Your task to perform on an android device: What's the weather going to be this weekend? Image 0: 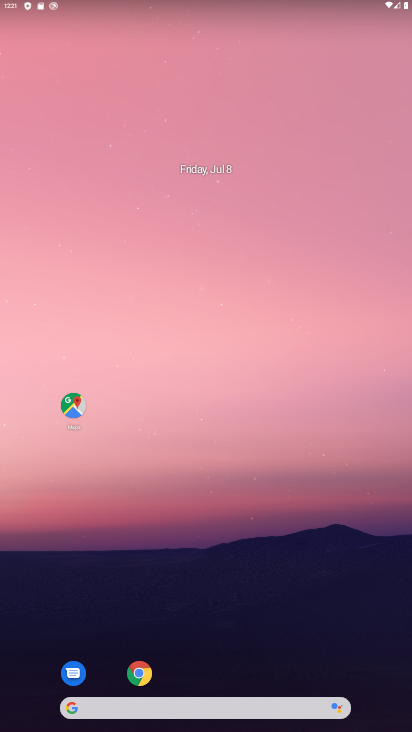
Step 0: drag from (249, 674) to (275, 71)
Your task to perform on an android device: What's the weather going to be this weekend? Image 1: 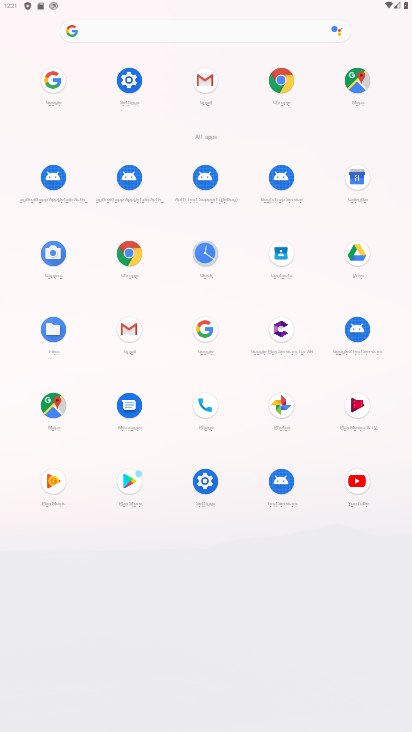
Step 1: click (202, 328)
Your task to perform on an android device: What's the weather going to be this weekend? Image 2: 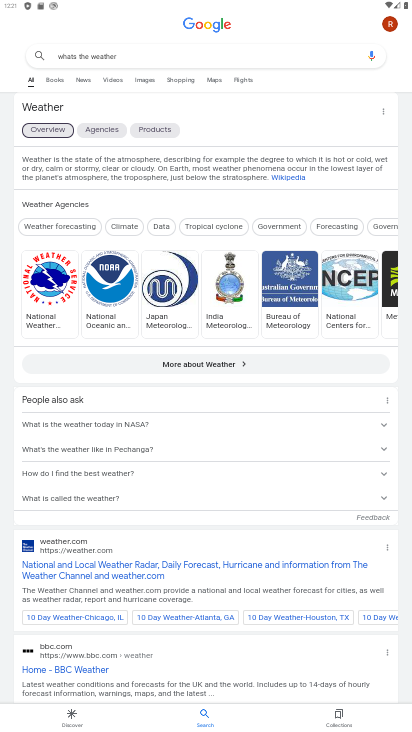
Step 2: click (197, 56)
Your task to perform on an android device: What's the weather going to be this weekend? Image 3: 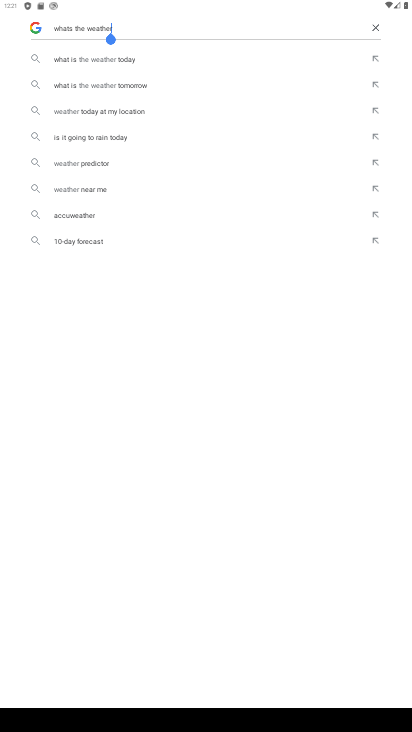
Step 3: click (375, 26)
Your task to perform on an android device: What's the weather going to be this weekend? Image 4: 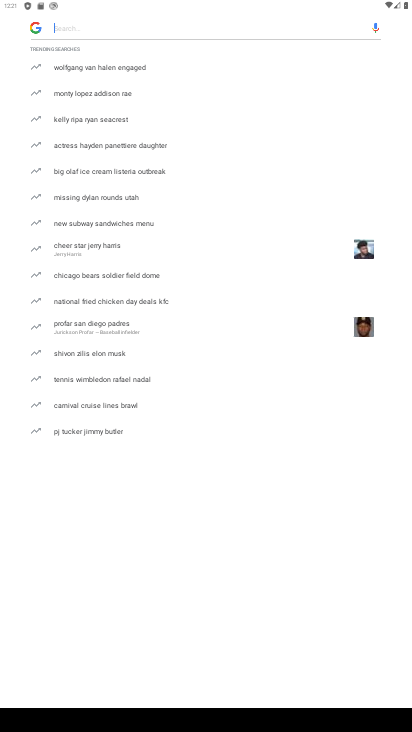
Step 4: type "weather weekend"
Your task to perform on an android device: What's the weather going to be this weekend? Image 5: 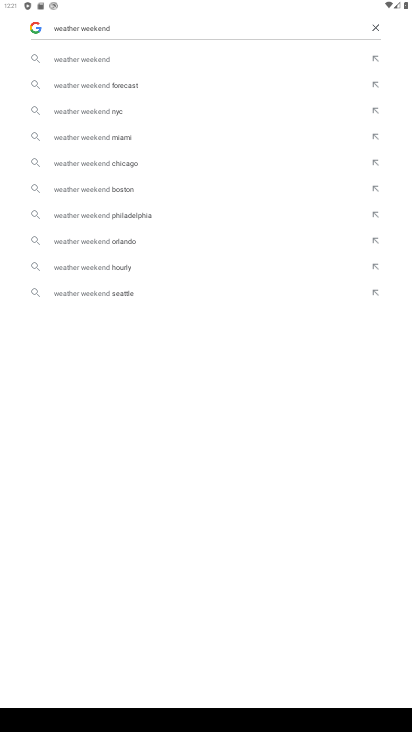
Step 5: click (133, 56)
Your task to perform on an android device: What's the weather going to be this weekend? Image 6: 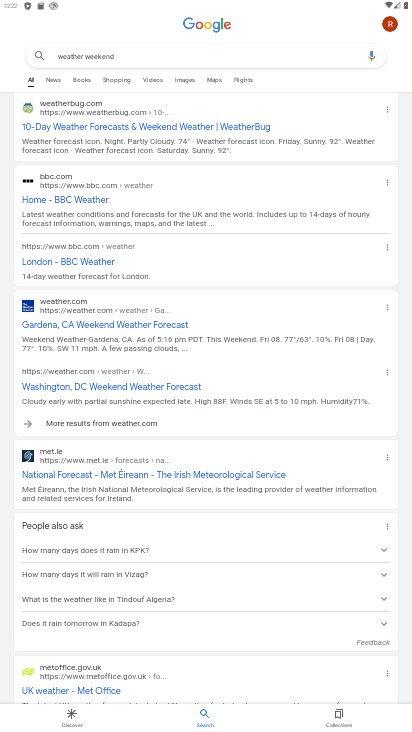
Step 6: task complete